Your task to perform on an android device: What's on my calendar today? Image 0: 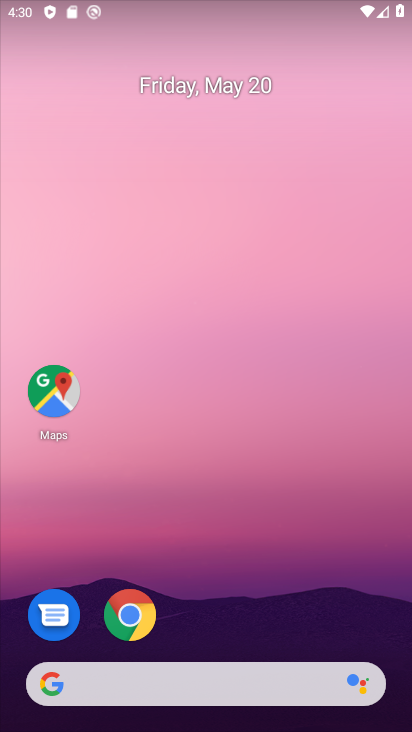
Step 0: drag from (252, 591) to (267, 227)
Your task to perform on an android device: What's on my calendar today? Image 1: 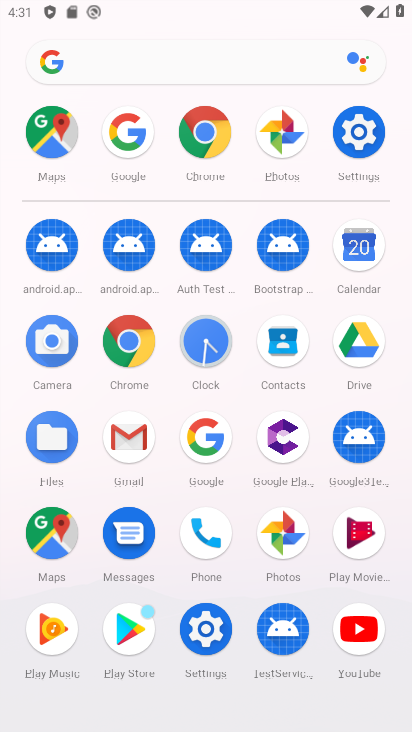
Step 1: click (384, 255)
Your task to perform on an android device: What's on my calendar today? Image 2: 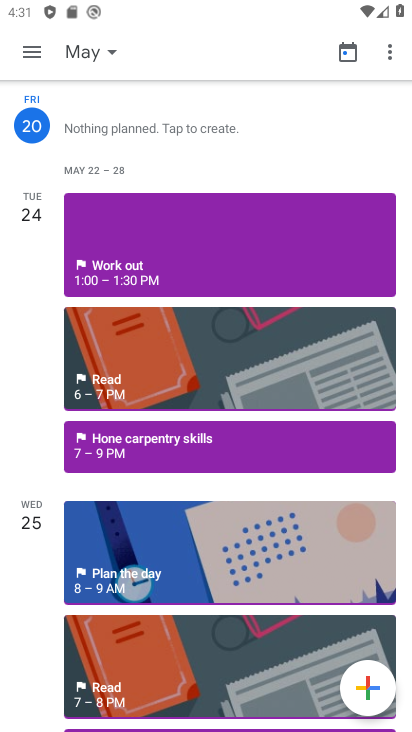
Step 2: task complete